Your task to perform on an android device: Go to Amazon Image 0: 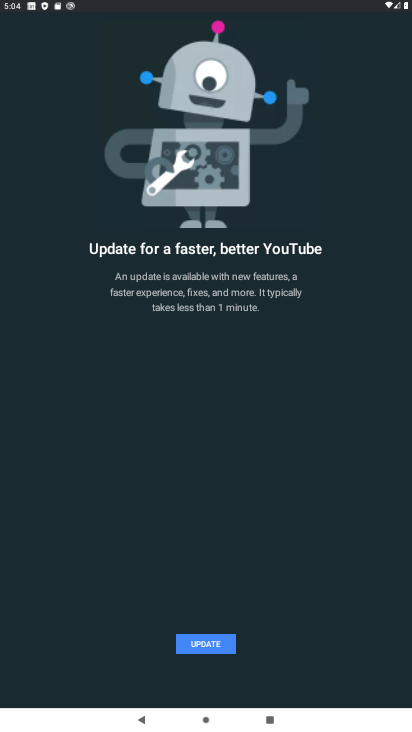
Step 0: press home button
Your task to perform on an android device: Go to Amazon Image 1: 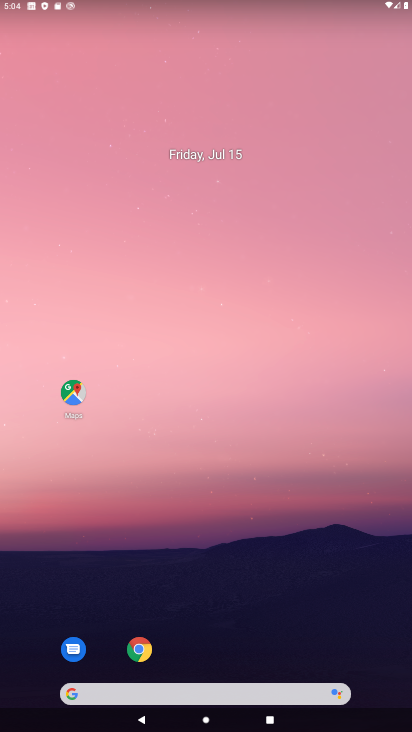
Step 1: click (139, 650)
Your task to perform on an android device: Go to Amazon Image 2: 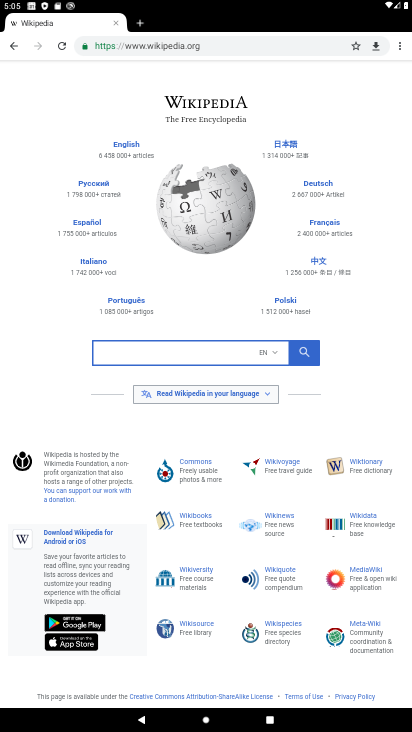
Step 2: click (208, 345)
Your task to perform on an android device: Go to Amazon Image 3: 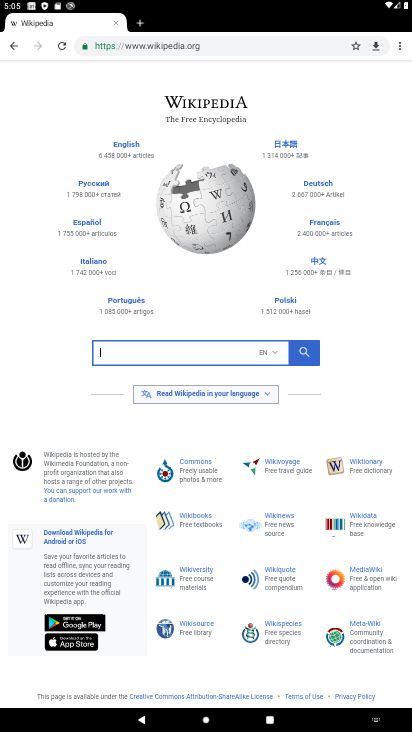
Step 3: click (209, 41)
Your task to perform on an android device: Go to Amazon Image 4: 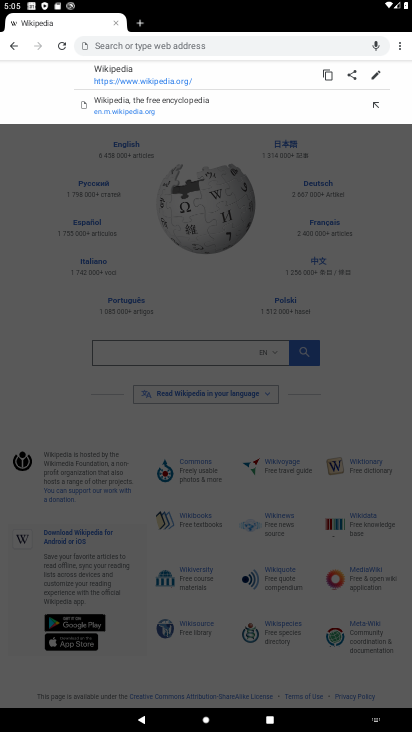
Step 4: type "Amazon"
Your task to perform on an android device: Go to Amazon Image 5: 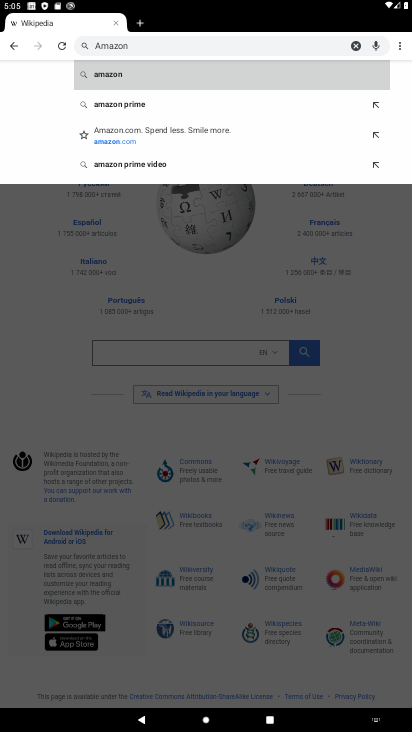
Step 5: click (174, 83)
Your task to perform on an android device: Go to Amazon Image 6: 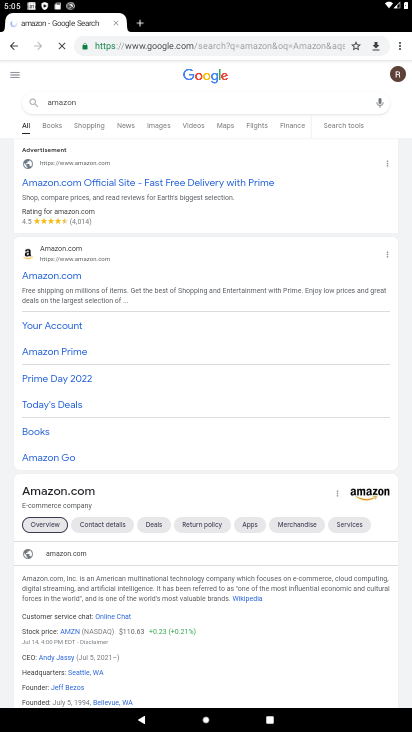
Step 6: click (73, 259)
Your task to perform on an android device: Go to Amazon Image 7: 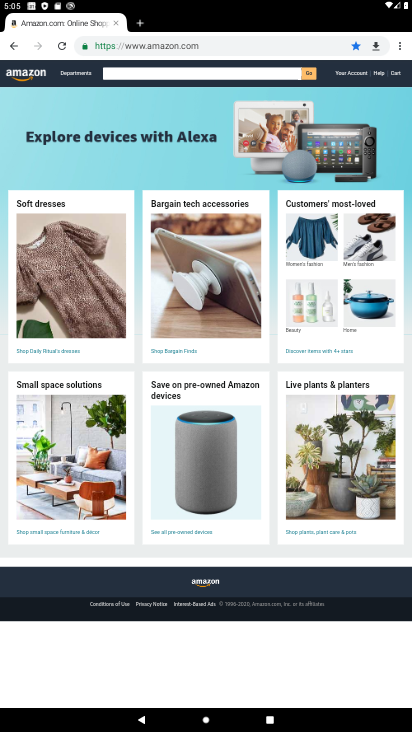
Step 7: task complete